Your task to perform on an android device: turn on location history Image 0: 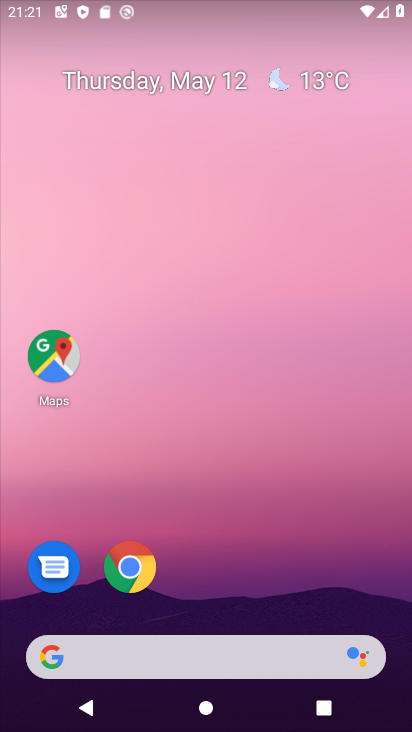
Step 0: drag from (218, 607) to (235, 62)
Your task to perform on an android device: turn on location history Image 1: 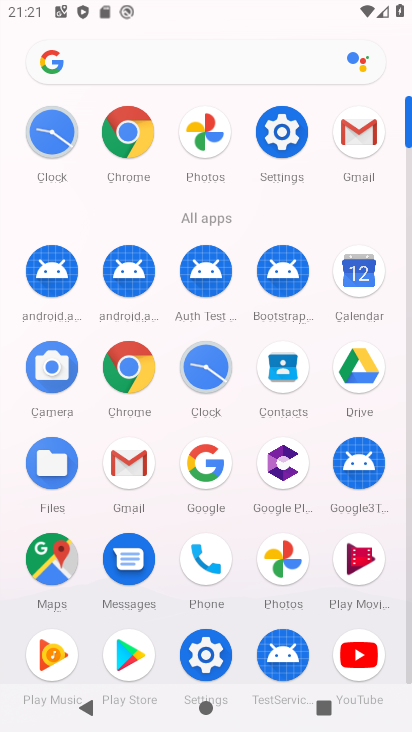
Step 1: click (200, 649)
Your task to perform on an android device: turn on location history Image 2: 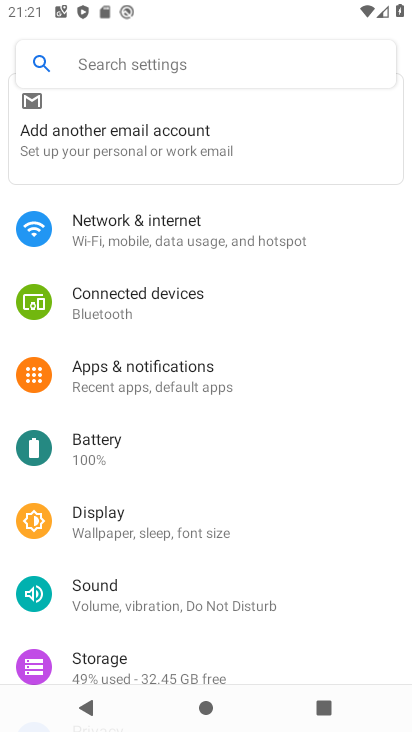
Step 2: drag from (164, 650) to (193, 172)
Your task to perform on an android device: turn on location history Image 3: 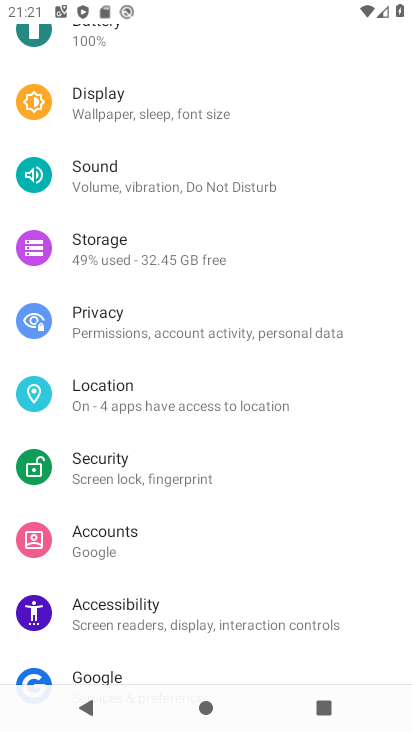
Step 3: click (144, 389)
Your task to perform on an android device: turn on location history Image 4: 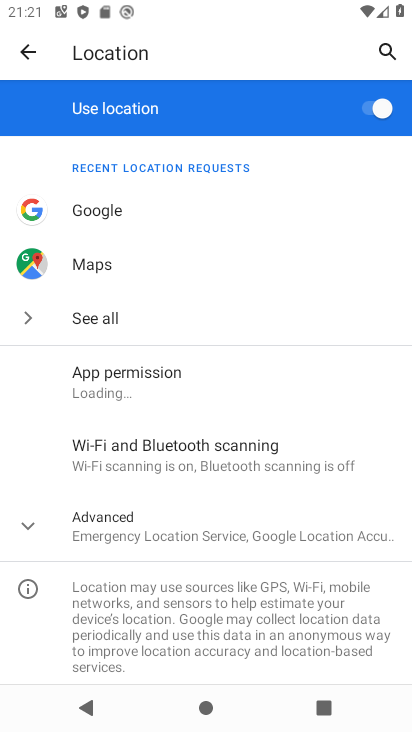
Step 4: click (32, 525)
Your task to perform on an android device: turn on location history Image 5: 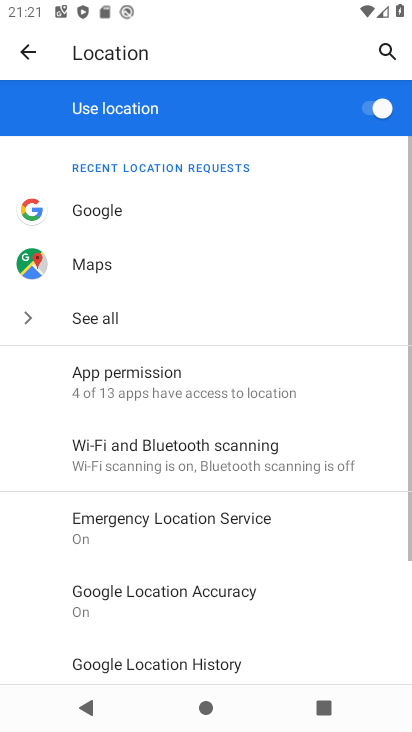
Step 5: click (257, 663)
Your task to perform on an android device: turn on location history Image 6: 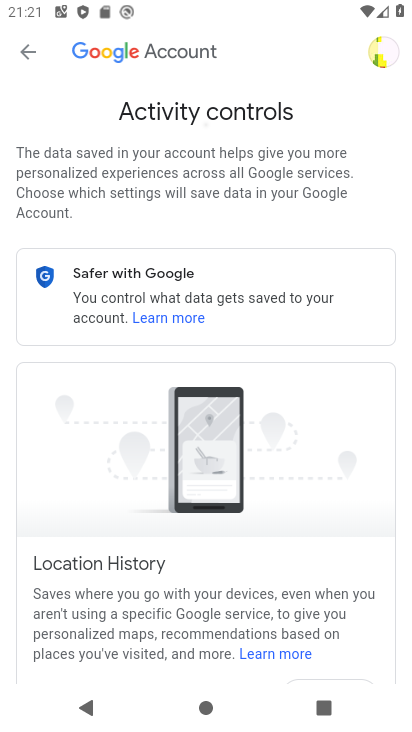
Step 6: drag from (206, 619) to (209, 170)
Your task to perform on an android device: turn on location history Image 7: 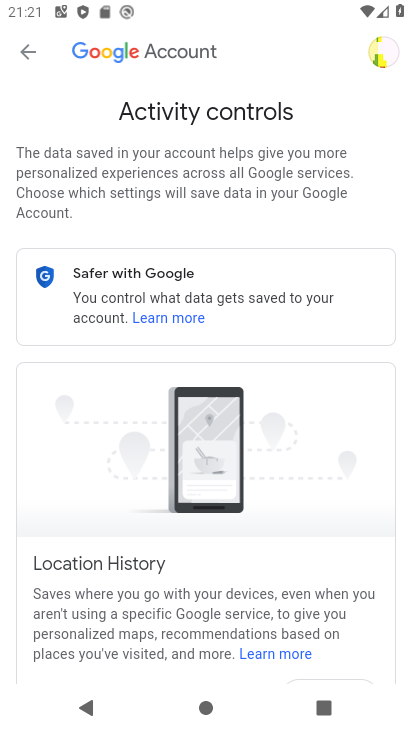
Step 7: drag from (210, 595) to (203, 158)
Your task to perform on an android device: turn on location history Image 8: 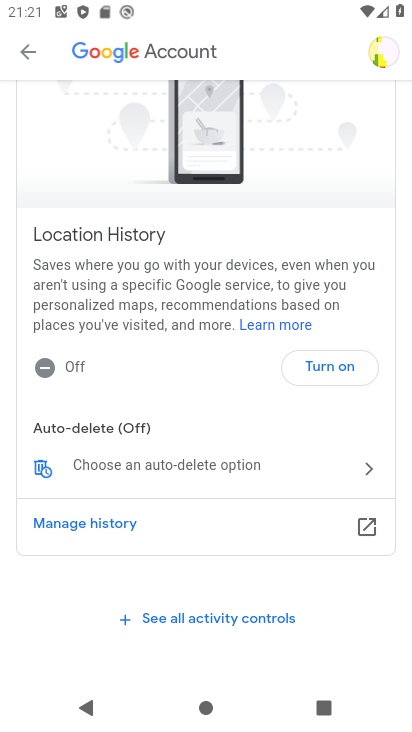
Step 8: click (336, 369)
Your task to perform on an android device: turn on location history Image 9: 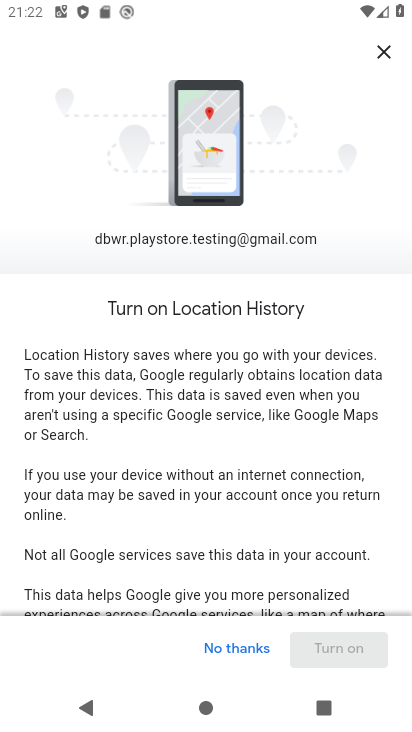
Step 9: drag from (296, 563) to (313, 92)
Your task to perform on an android device: turn on location history Image 10: 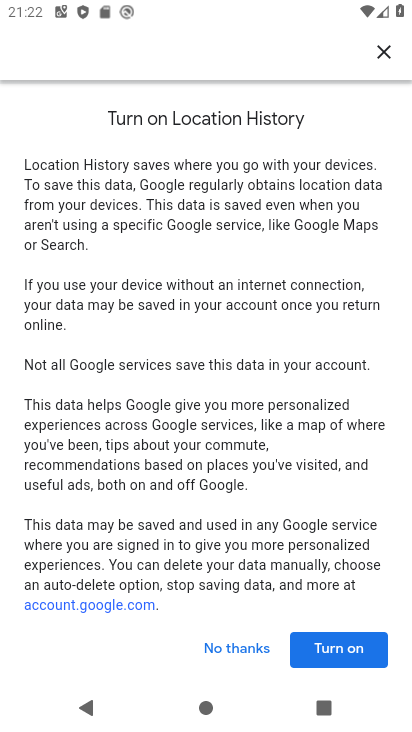
Step 10: click (337, 651)
Your task to perform on an android device: turn on location history Image 11: 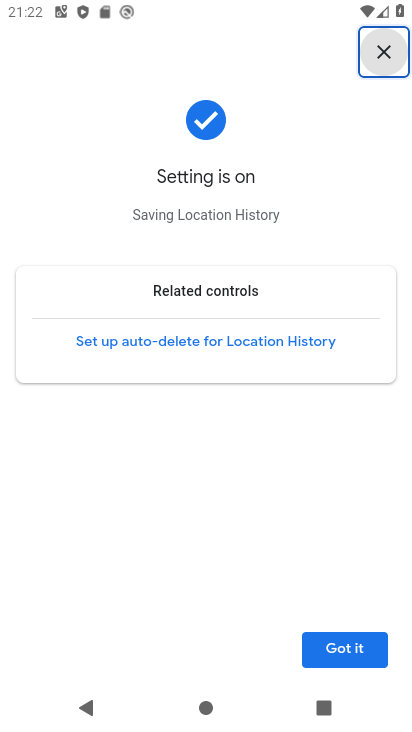
Step 11: click (337, 647)
Your task to perform on an android device: turn on location history Image 12: 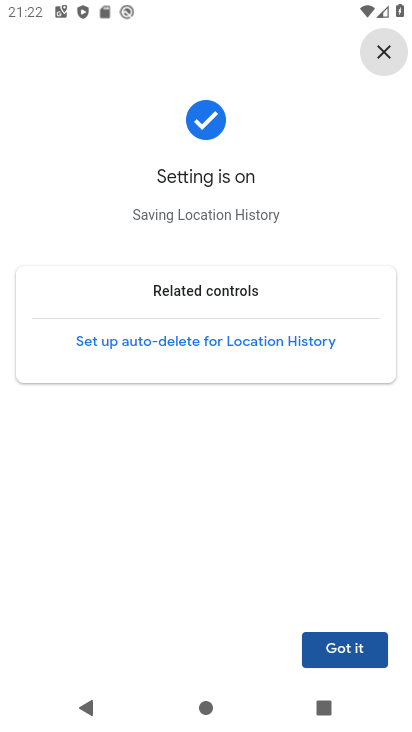
Step 12: task complete